Your task to perform on an android device: Go to Google maps Image 0: 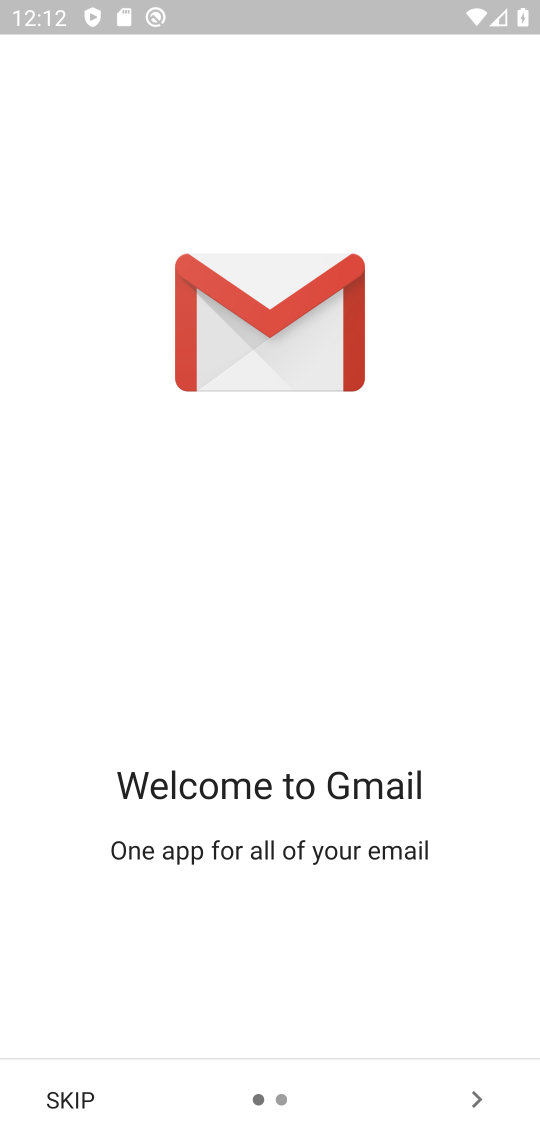
Step 0: click (76, 1100)
Your task to perform on an android device: Go to Google maps Image 1: 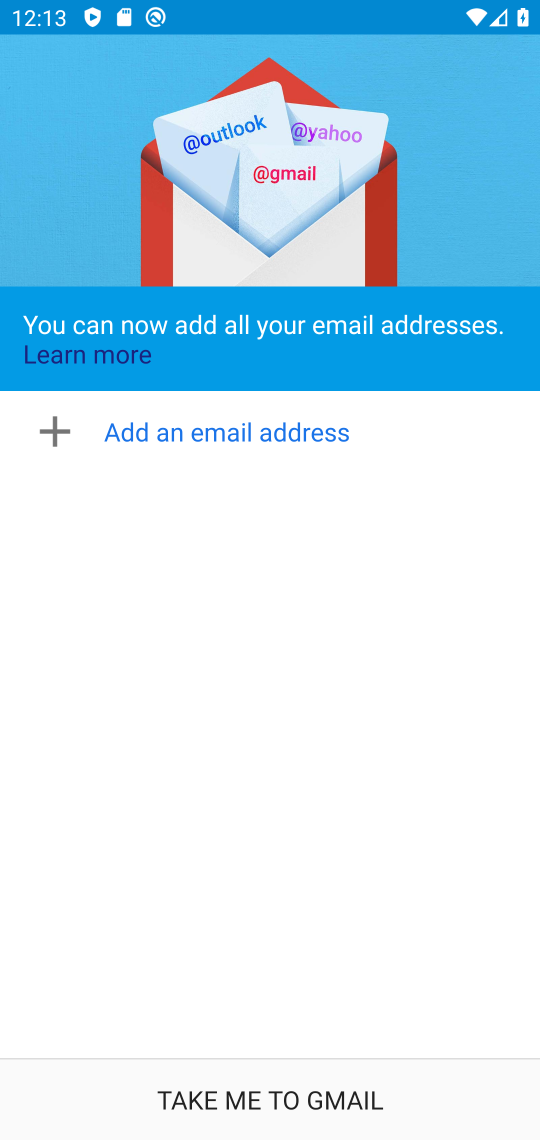
Step 1: press home button
Your task to perform on an android device: Go to Google maps Image 2: 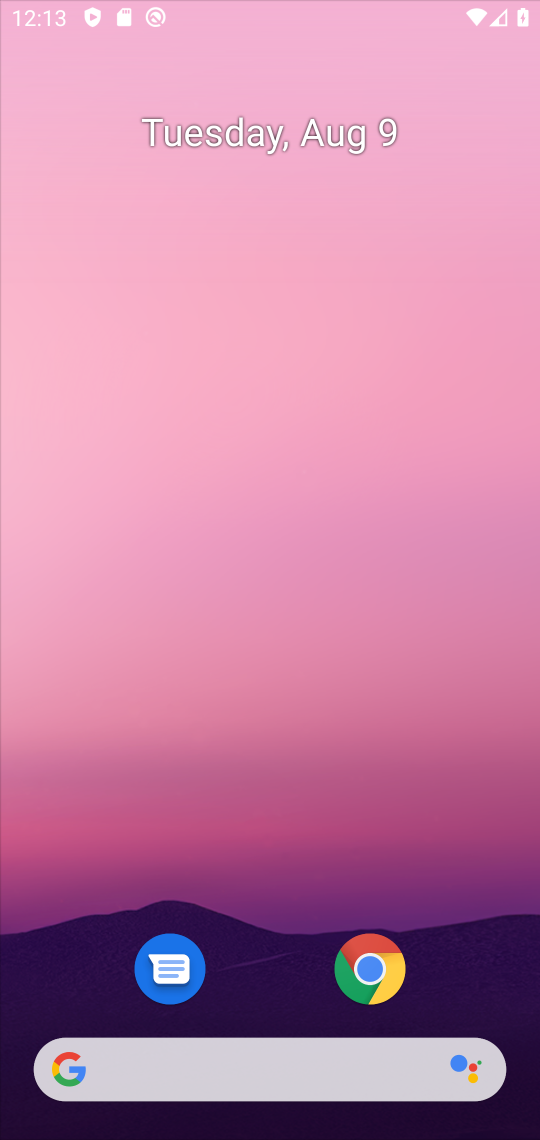
Step 2: drag from (291, 966) to (320, 374)
Your task to perform on an android device: Go to Google maps Image 3: 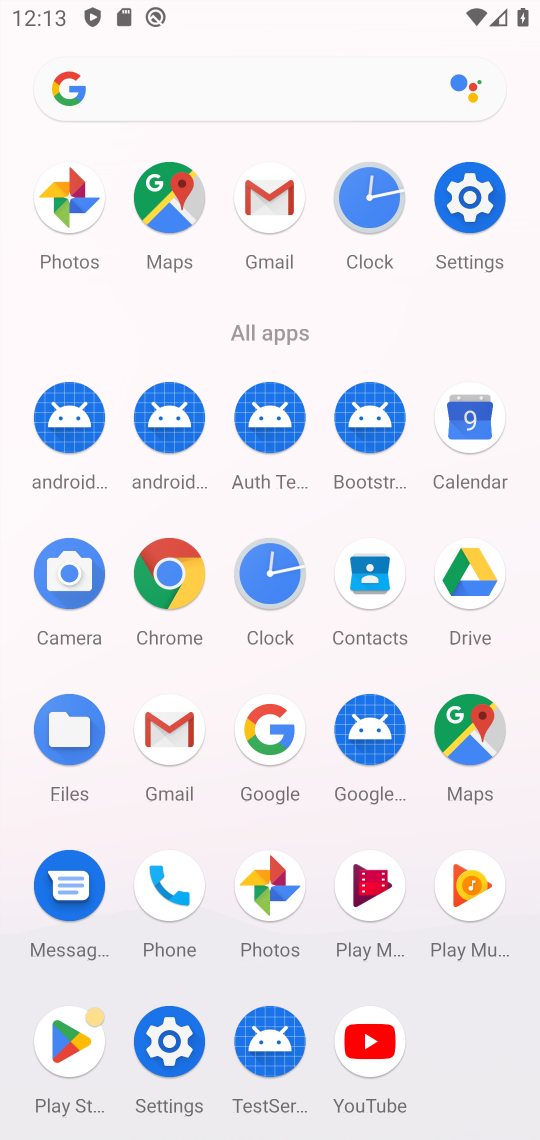
Step 3: click (163, 217)
Your task to perform on an android device: Go to Google maps Image 4: 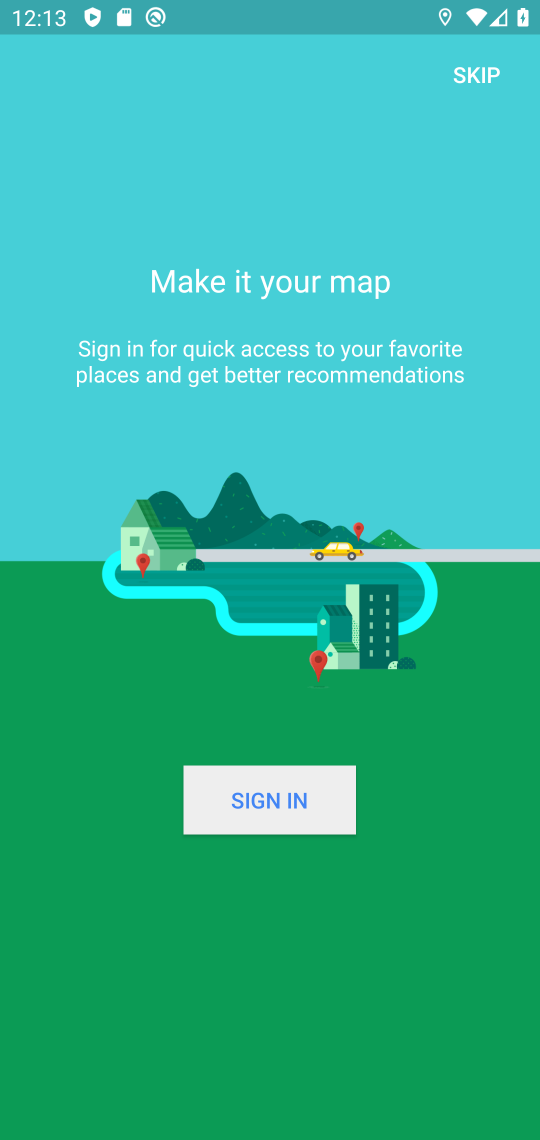
Step 4: click (474, 83)
Your task to perform on an android device: Go to Google maps Image 5: 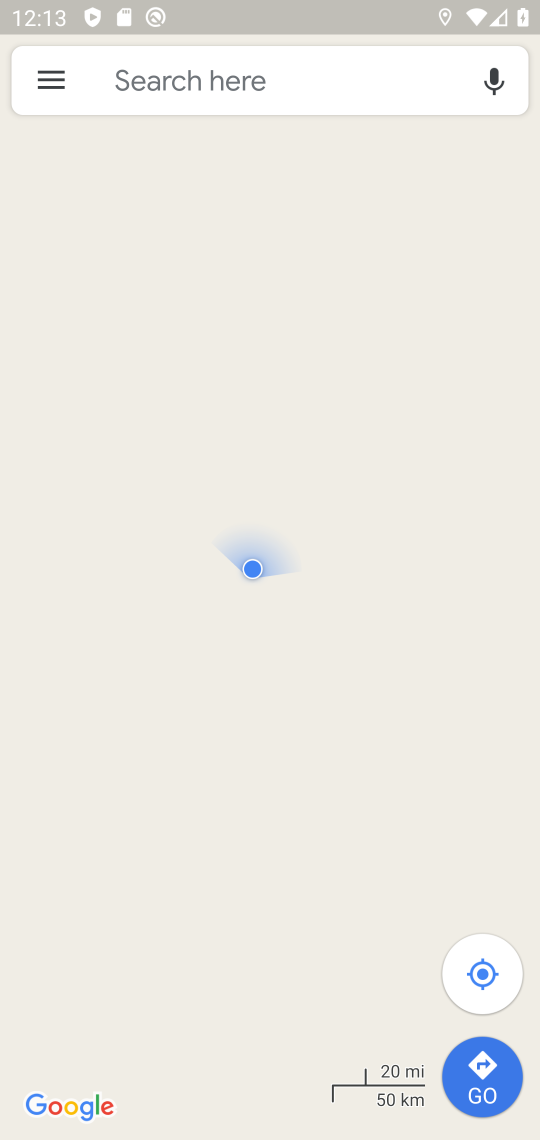
Step 5: click (145, 99)
Your task to perform on an android device: Go to Google maps Image 6: 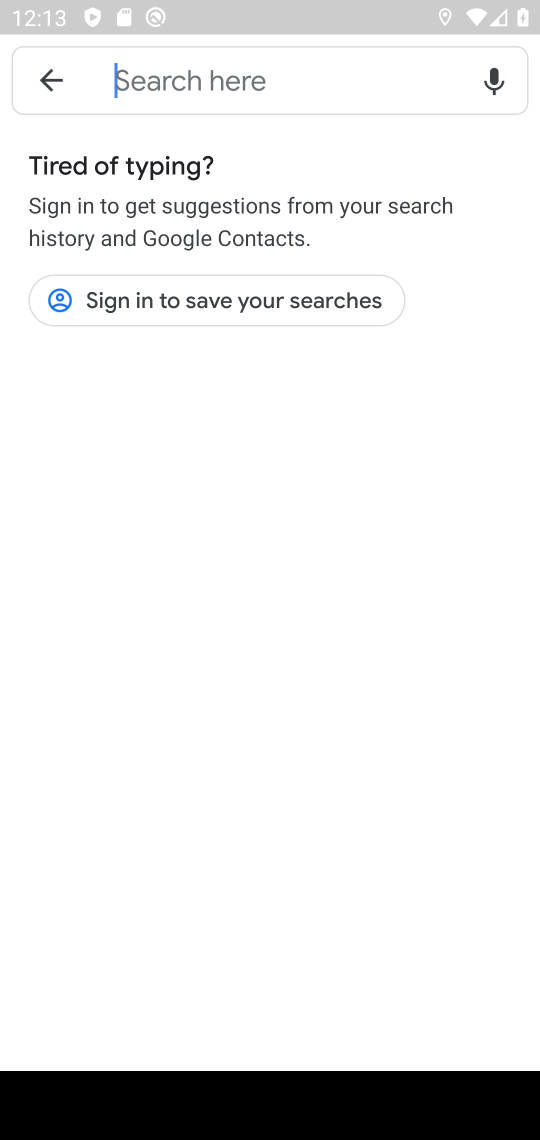
Step 6: click (61, 80)
Your task to perform on an android device: Go to Google maps Image 7: 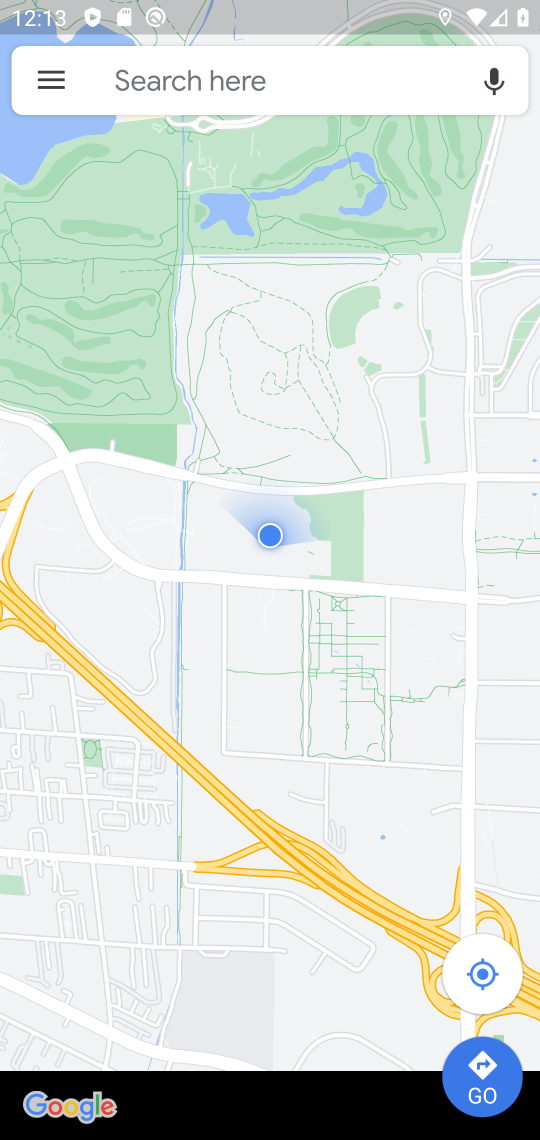
Step 7: task complete